Your task to perform on an android device: uninstall "Google Chrome" Image 0: 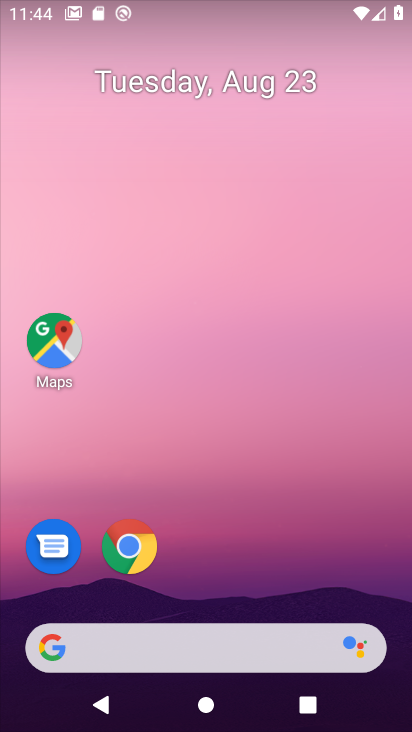
Step 0: drag from (226, 586) to (217, 232)
Your task to perform on an android device: uninstall "Google Chrome" Image 1: 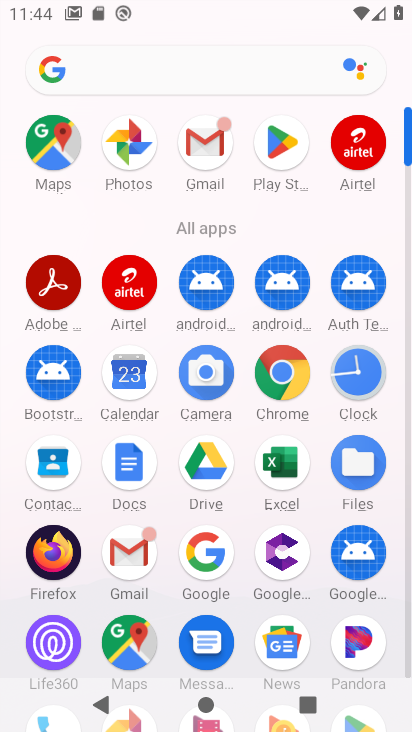
Step 1: click (287, 129)
Your task to perform on an android device: uninstall "Google Chrome" Image 2: 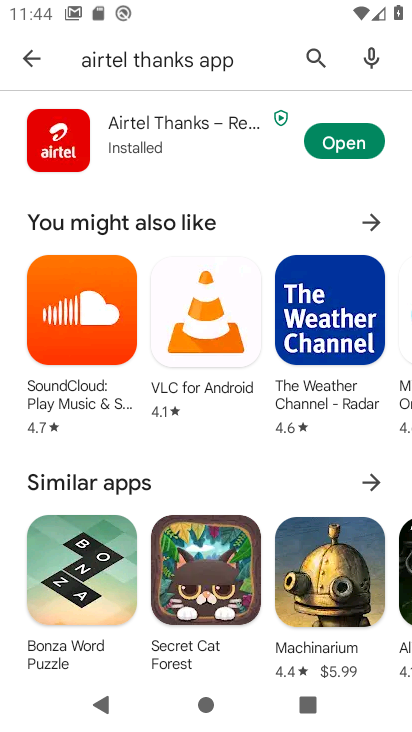
Step 2: click (33, 58)
Your task to perform on an android device: uninstall "Google Chrome" Image 3: 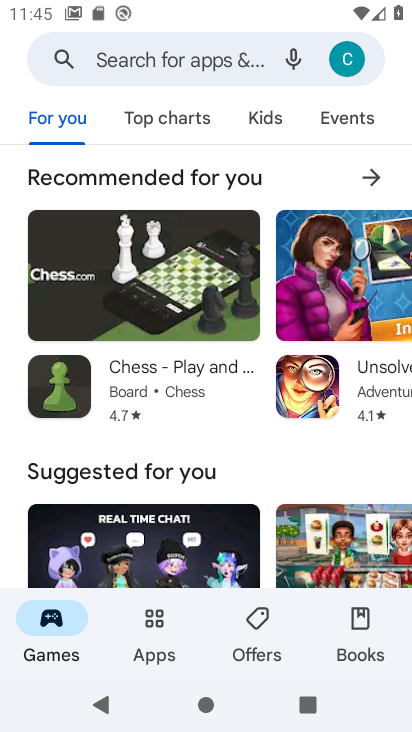
Step 3: click (124, 61)
Your task to perform on an android device: uninstall "Google Chrome" Image 4: 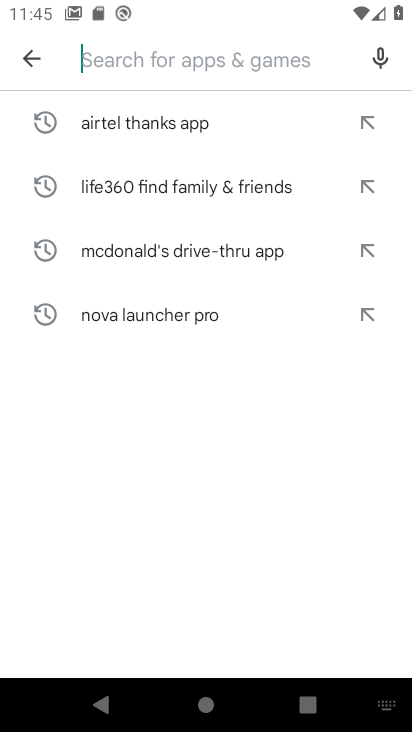
Step 4: type "Google Chrome "
Your task to perform on an android device: uninstall "Google Chrome" Image 5: 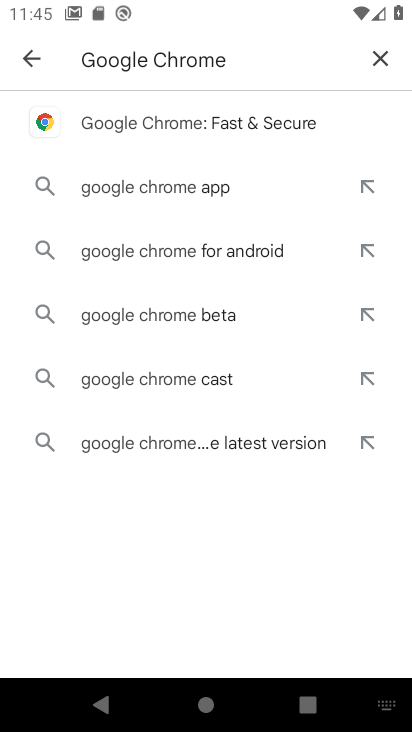
Step 5: click (161, 171)
Your task to perform on an android device: uninstall "Google Chrome" Image 6: 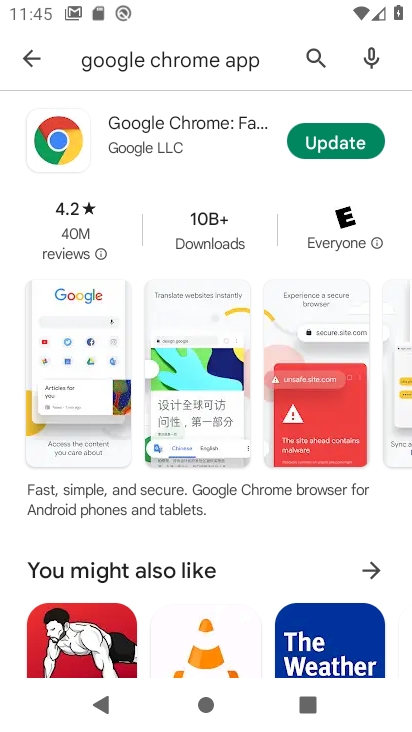
Step 6: click (181, 132)
Your task to perform on an android device: uninstall "Google Chrome" Image 7: 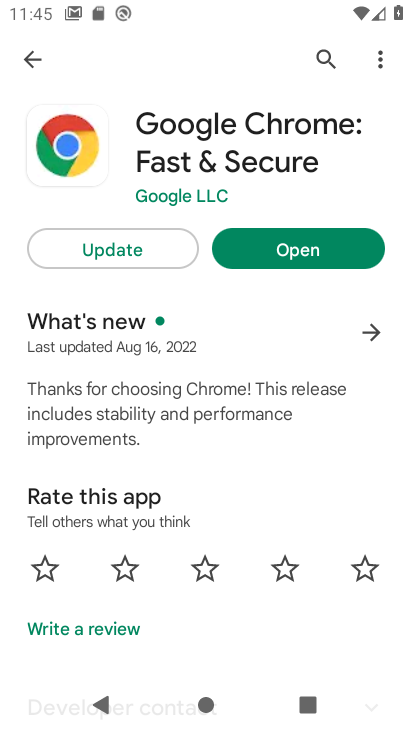
Step 7: click (103, 249)
Your task to perform on an android device: uninstall "Google Chrome" Image 8: 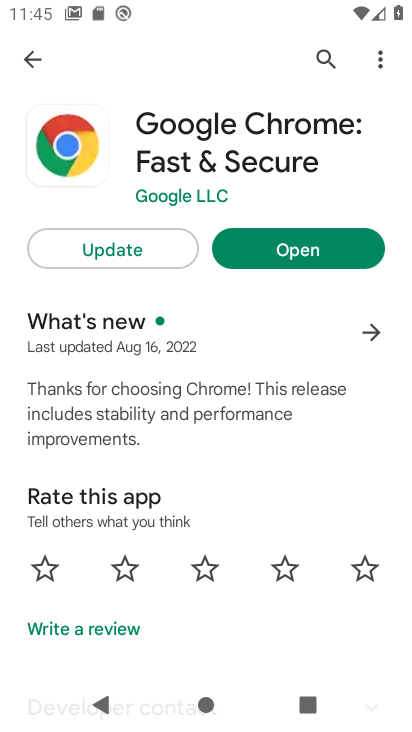
Step 8: click (125, 248)
Your task to perform on an android device: uninstall "Google Chrome" Image 9: 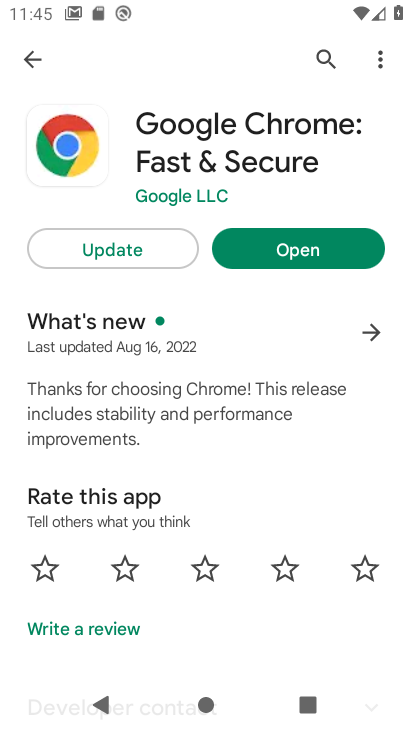
Step 9: click (139, 227)
Your task to perform on an android device: uninstall "Google Chrome" Image 10: 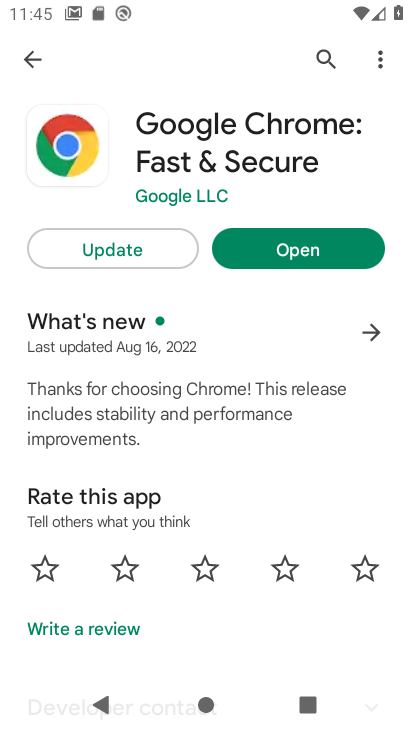
Step 10: click (110, 239)
Your task to perform on an android device: uninstall "Google Chrome" Image 11: 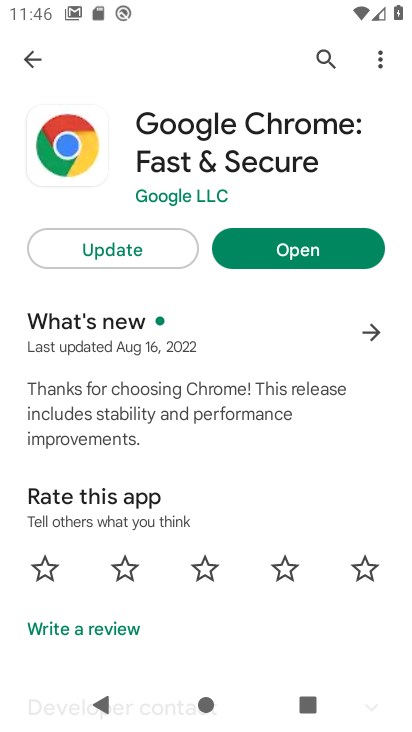
Step 11: click (105, 239)
Your task to perform on an android device: uninstall "Google Chrome" Image 12: 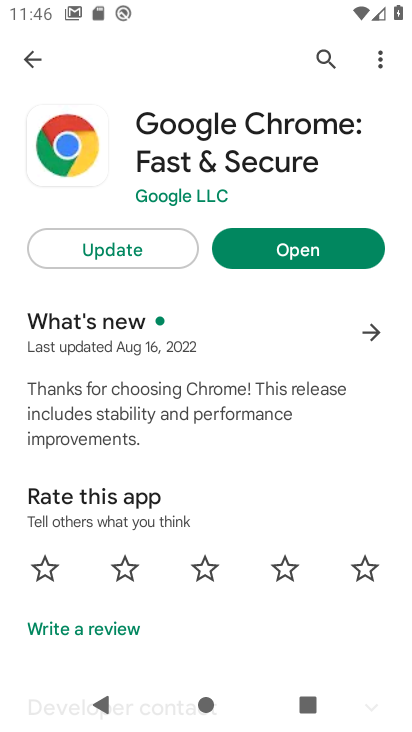
Step 12: task complete